Your task to perform on an android device: see tabs open on other devices in the chrome app Image 0: 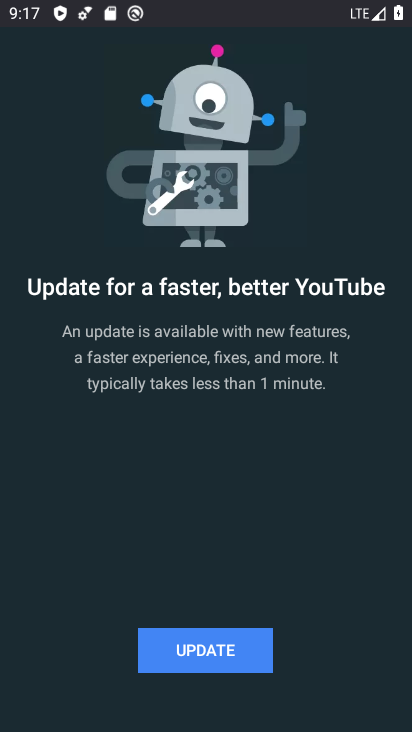
Step 0: press home button
Your task to perform on an android device: see tabs open on other devices in the chrome app Image 1: 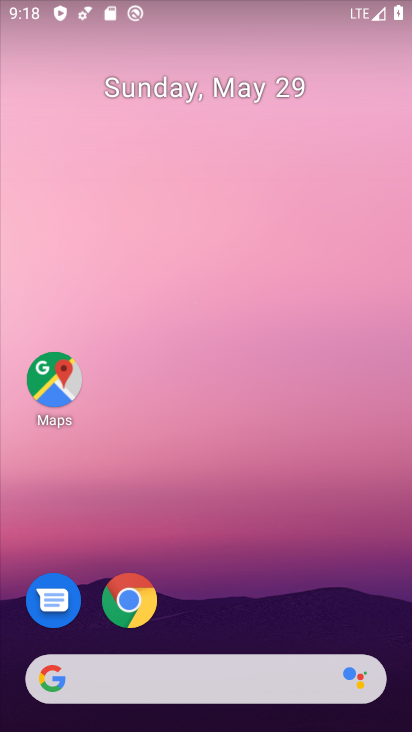
Step 1: click (78, 591)
Your task to perform on an android device: see tabs open on other devices in the chrome app Image 2: 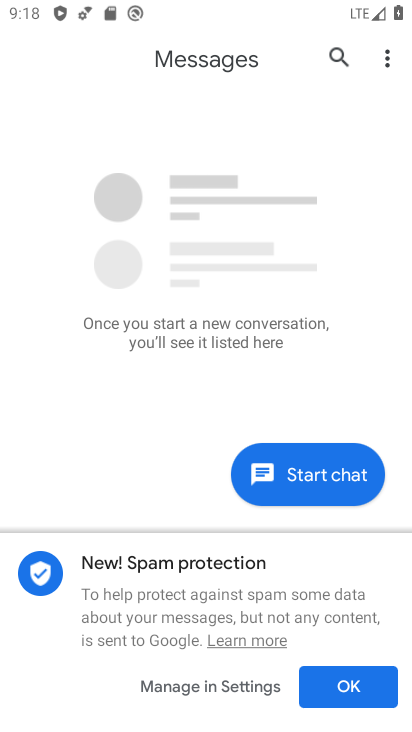
Step 2: press home button
Your task to perform on an android device: see tabs open on other devices in the chrome app Image 3: 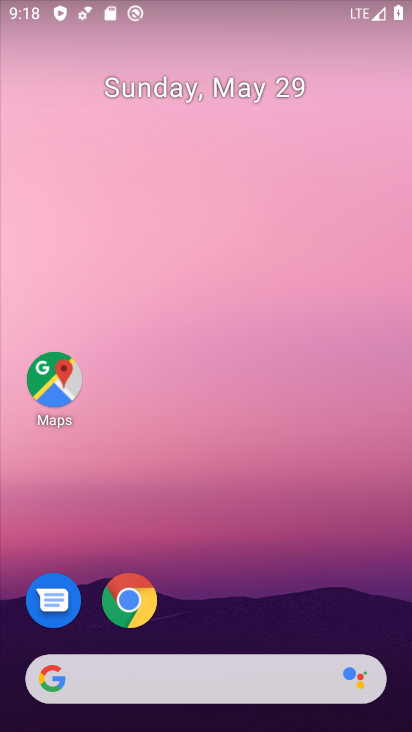
Step 3: click (123, 592)
Your task to perform on an android device: see tabs open on other devices in the chrome app Image 4: 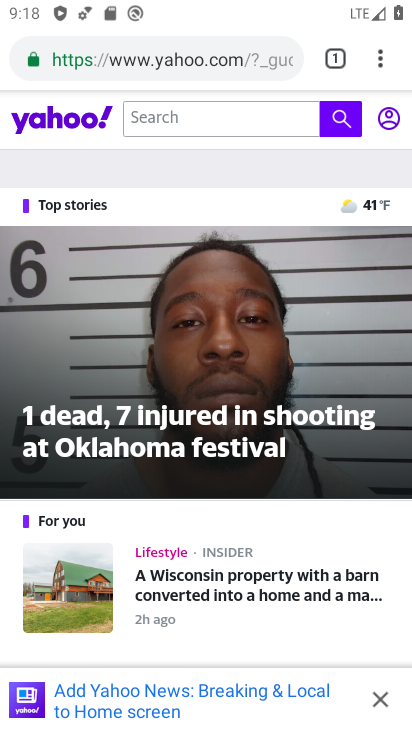
Step 4: drag from (384, 46) to (186, 280)
Your task to perform on an android device: see tabs open on other devices in the chrome app Image 5: 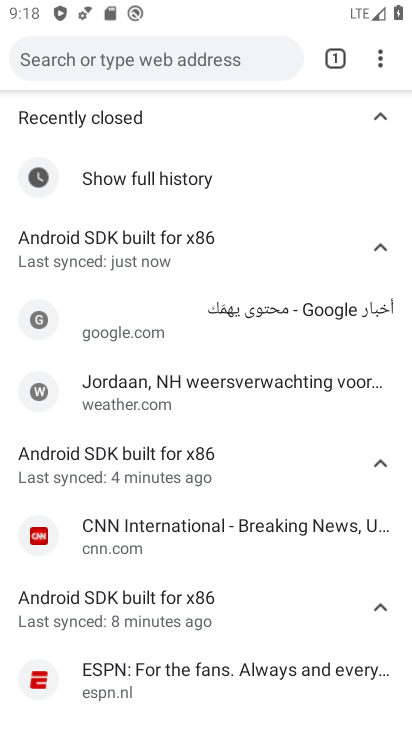
Step 5: click (360, 474)
Your task to perform on an android device: see tabs open on other devices in the chrome app Image 6: 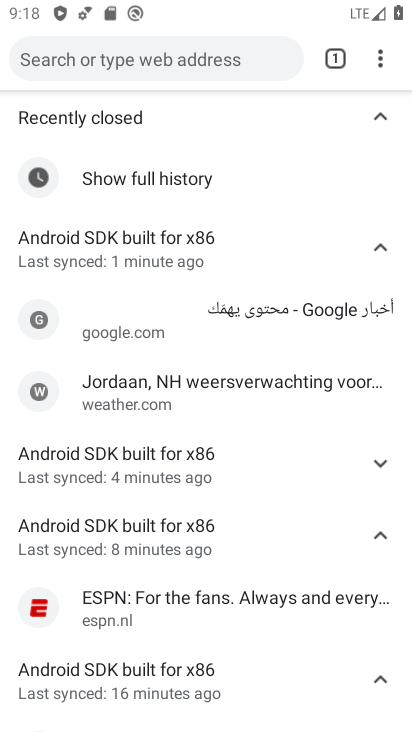
Step 6: task complete